Your task to perform on an android device: Show the shopping cart on target. Add rayovac triple a to the cart on target, then select checkout. Image 0: 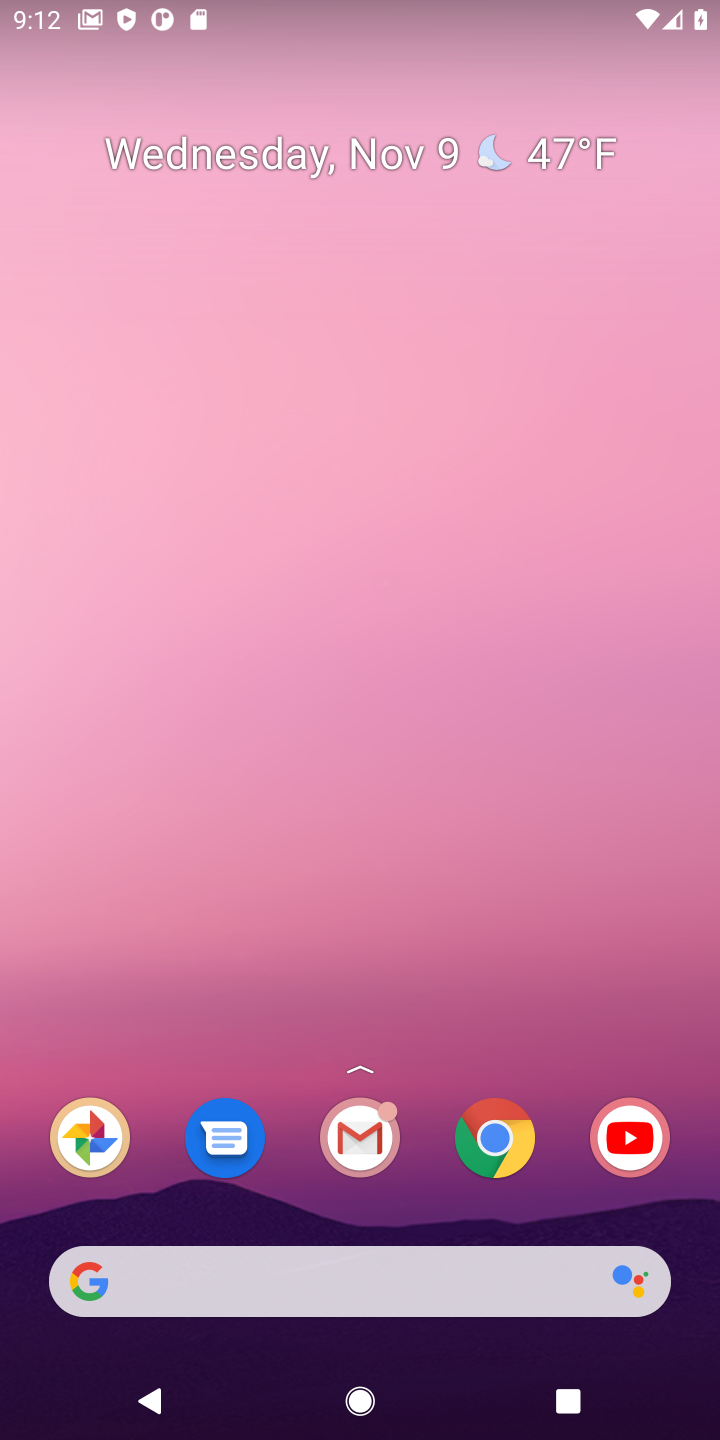
Step 0: drag from (412, 1187) to (421, 145)
Your task to perform on an android device: Show the shopping cart on target. Add rayovac triple a to the cart on target, then select checkout. Image 1: 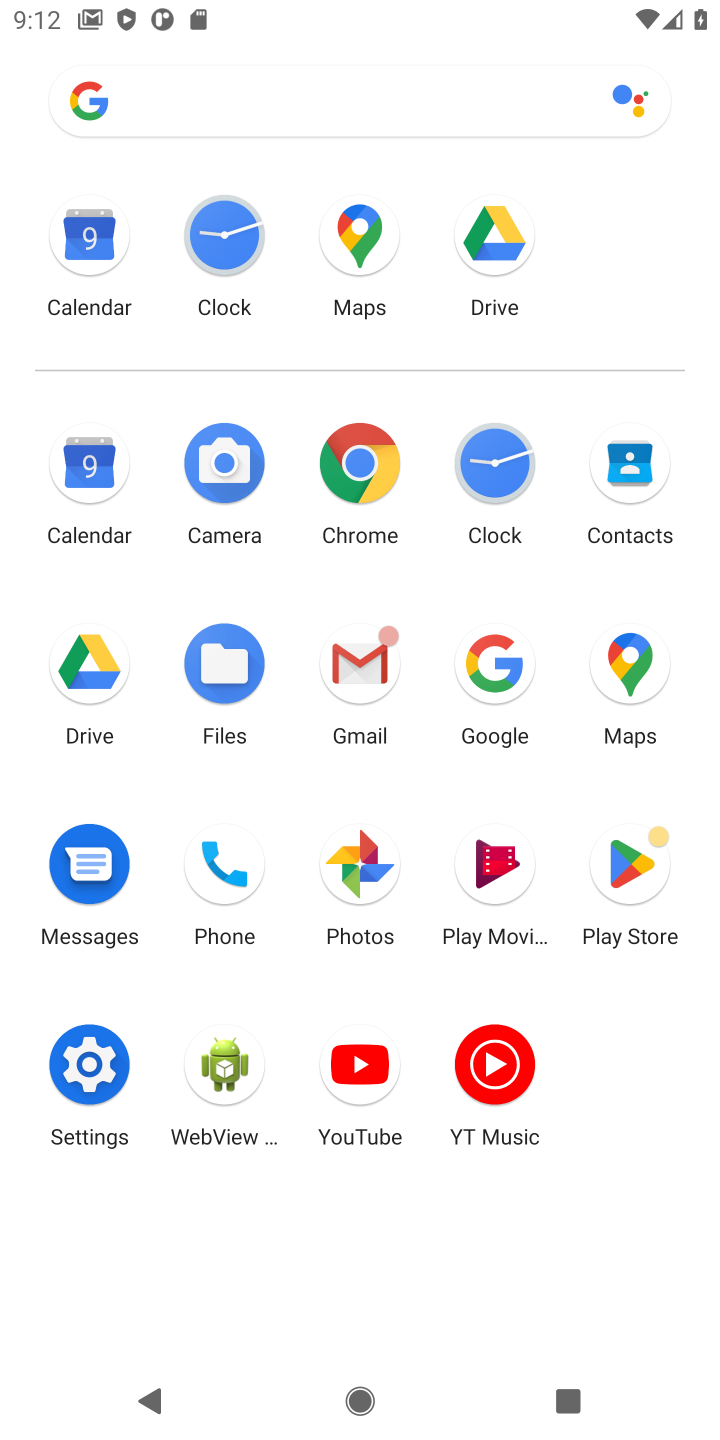
Step 1: click (359, 466)
Your task to perform on an android device: Show the shopping cart on target. Add rayovac triple a to the cart on target, then select checkout. Image 2: 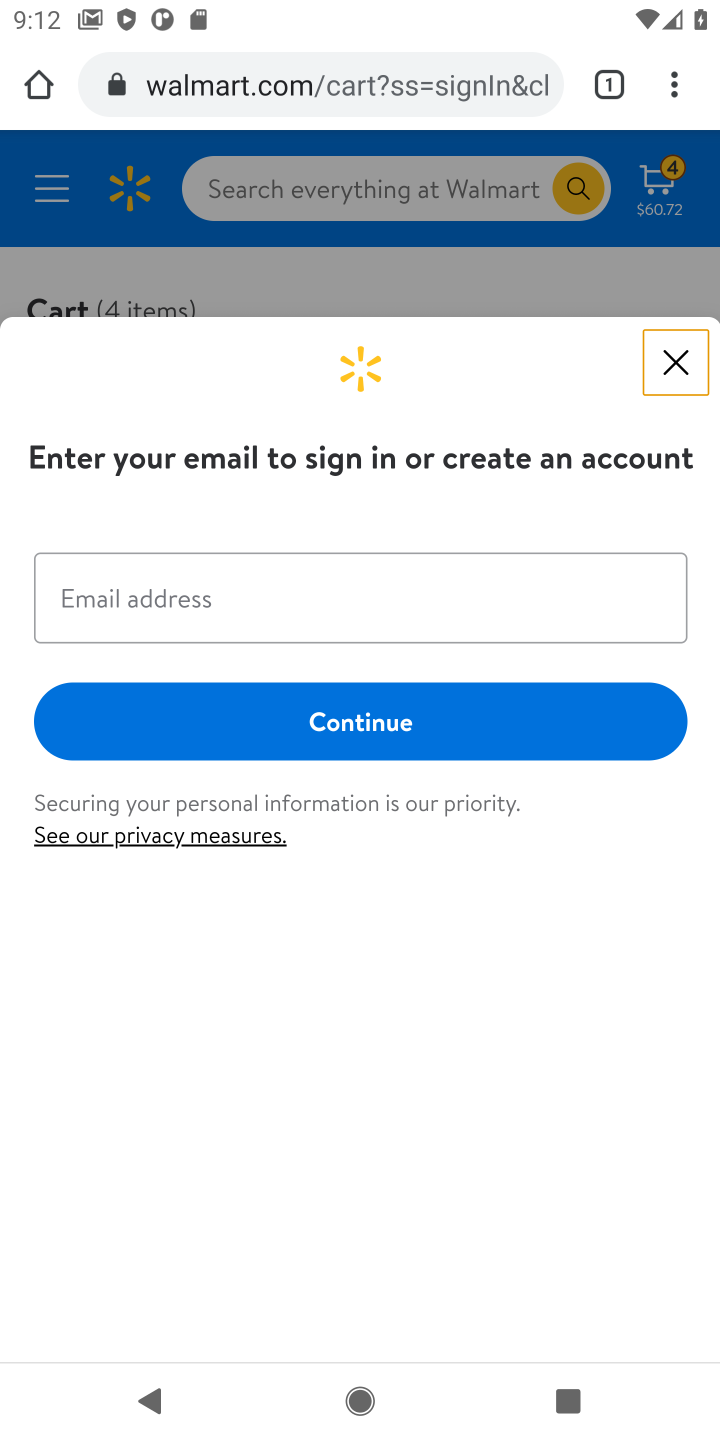
Step 2: click (315, 70)
Your task to perform on an android device: Show the shopping cart on target. Add rayovac triple a to the cart on target, then select checkout. Image 3: 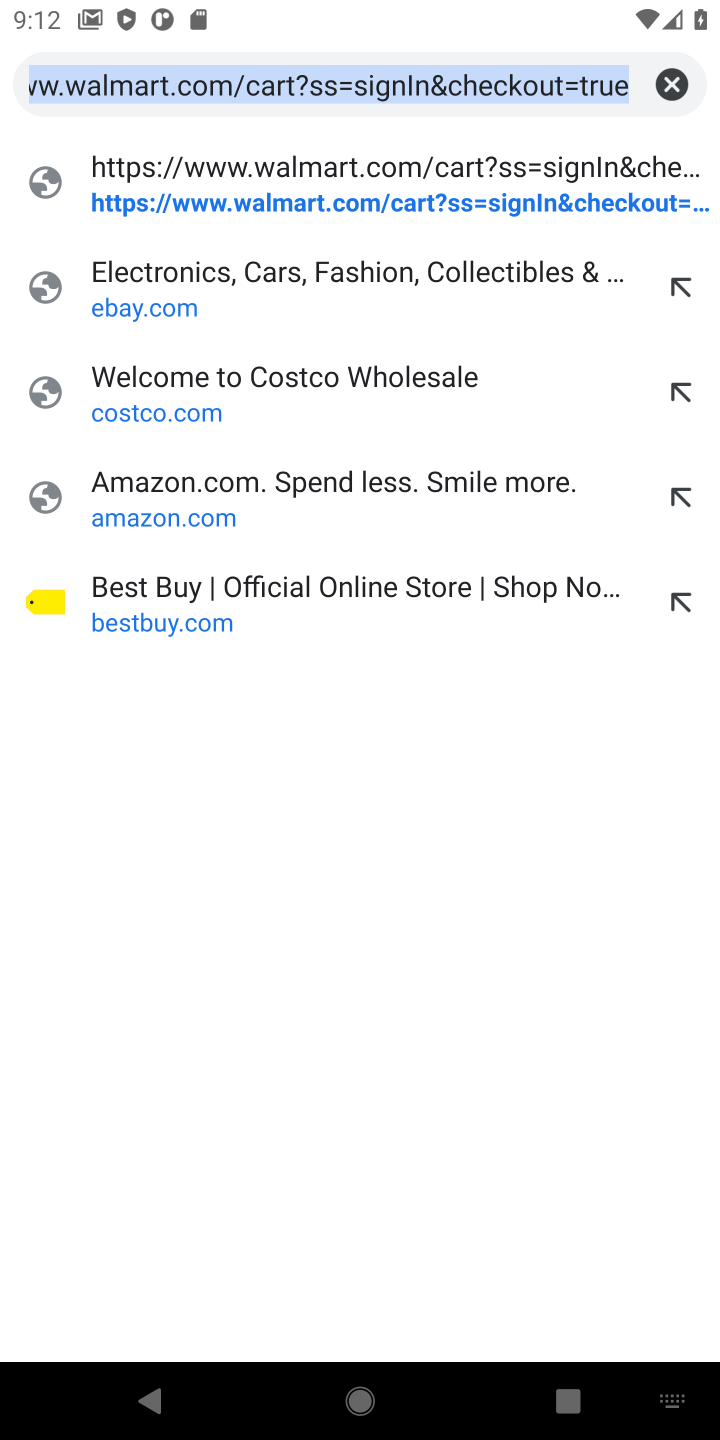
Step 3: type "target.com"
Your task to perform on an android device: Show the shopping cart on target. Add rayovac triple a to the cart on target, then select checkout. Image 4: 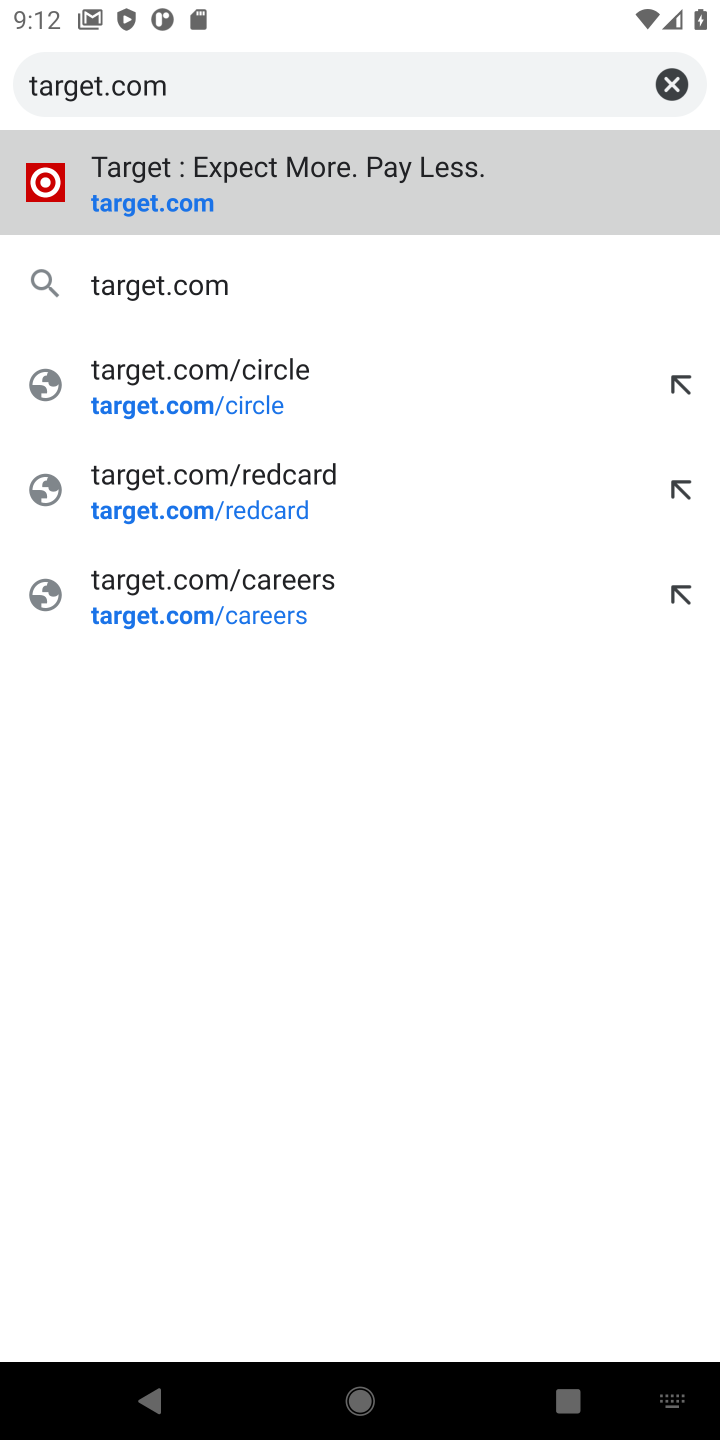
Step 4: press enter
Your task to perform on an android device: Show the shopping cart on target. Add rayovac triple a to the cart on target, then select checkout. Image 5: 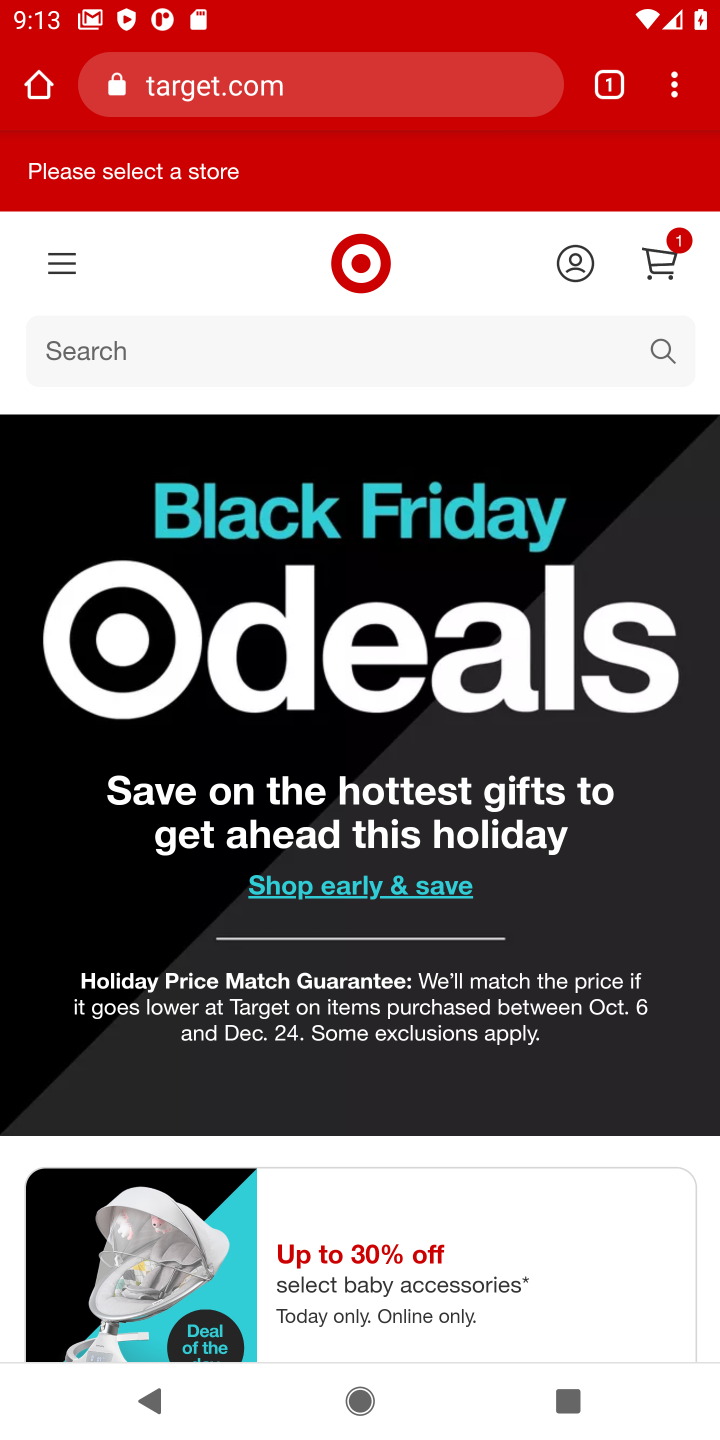
Step 5: click (485, 352)
Your task to perform on an android device: Show the shopping cart on target. Add rayovac triple a to the cart on target, then select checkout. Image 6: 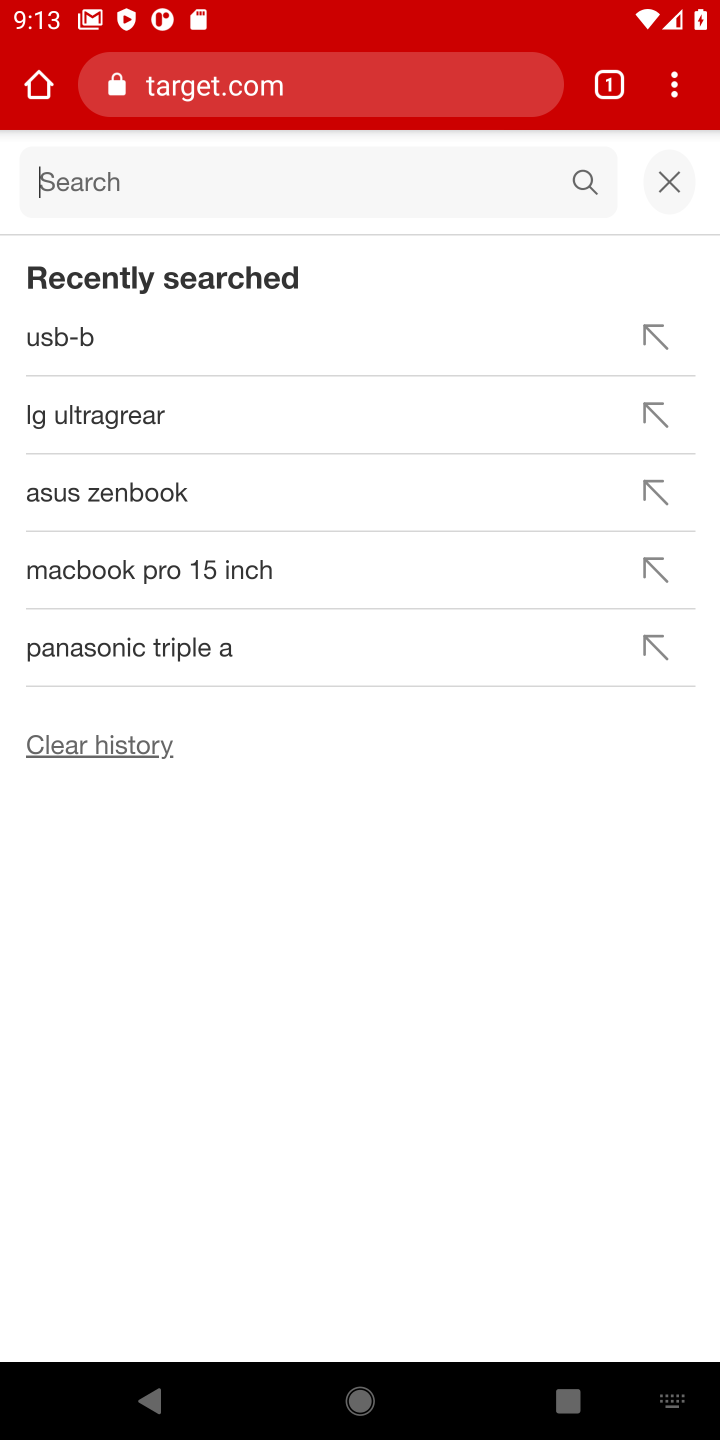
Step 6: click (665, 190)
Your task to perform on an android device: Show the shopping cart on target. Add rayovac triple a to the cart on target, then select checkout. Image 7: 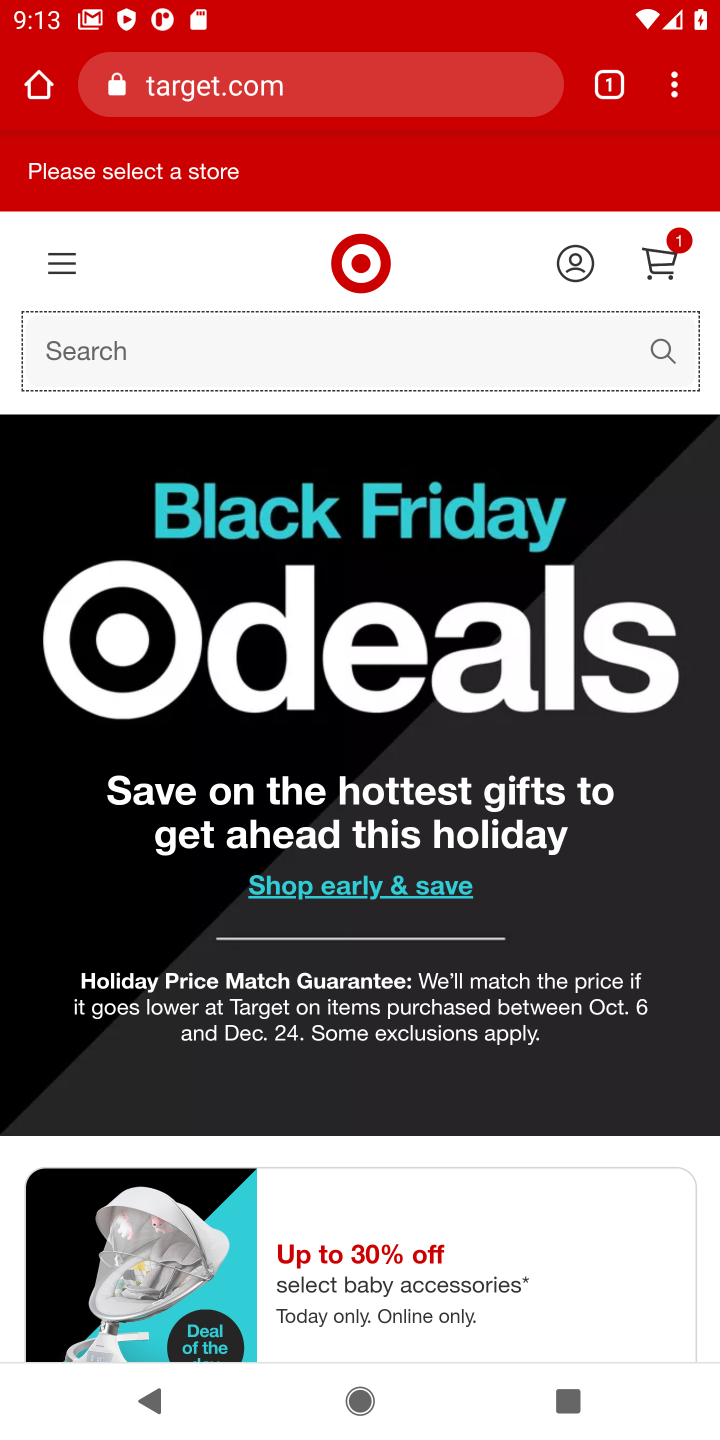
Step 7: click (667, 242)
Your task to perform on an android device: Show the shopping cart on target. Add rayovac triple a to the cart on target, then select checkout. Image 8: 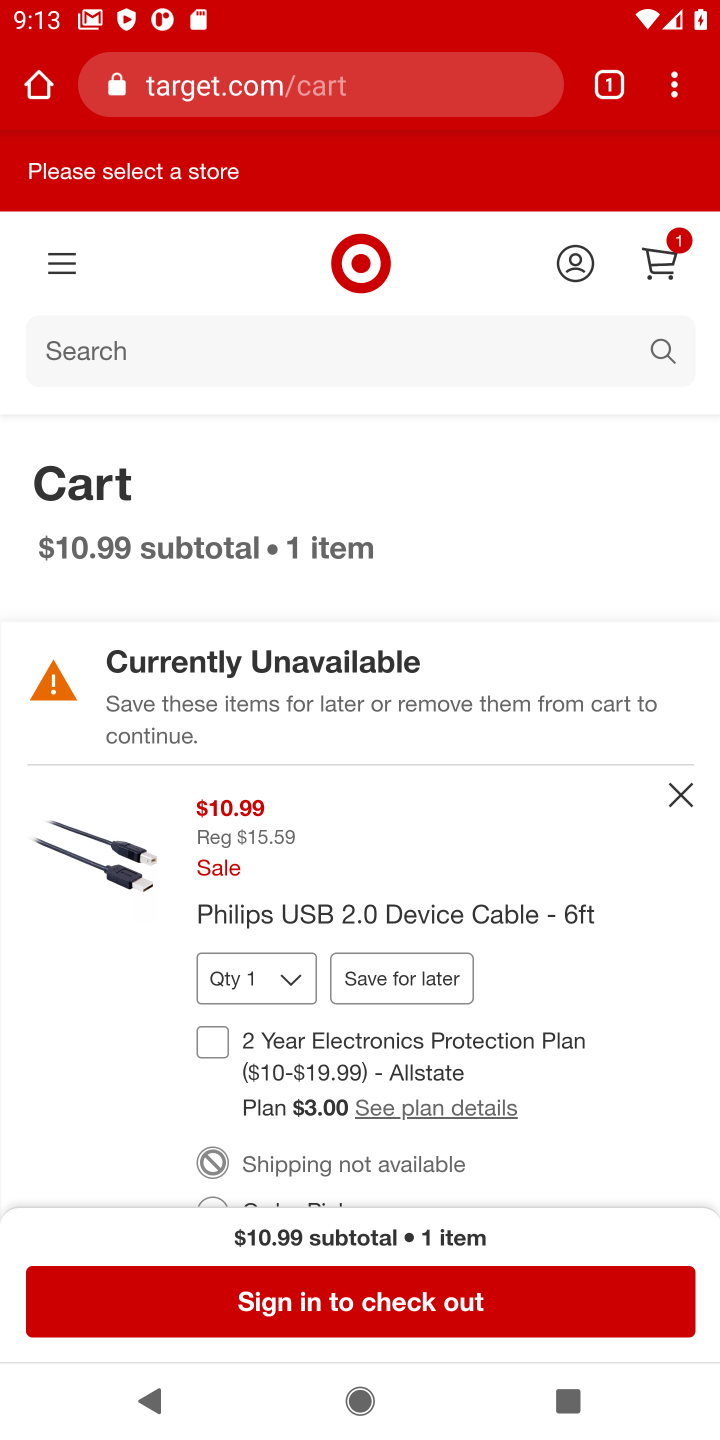
Step 8: click (461, 369)
Your task to perform on an android device: Show the shopping cart on target. Add rayovac triple a to the cart on target, then select checkout. Image 9: 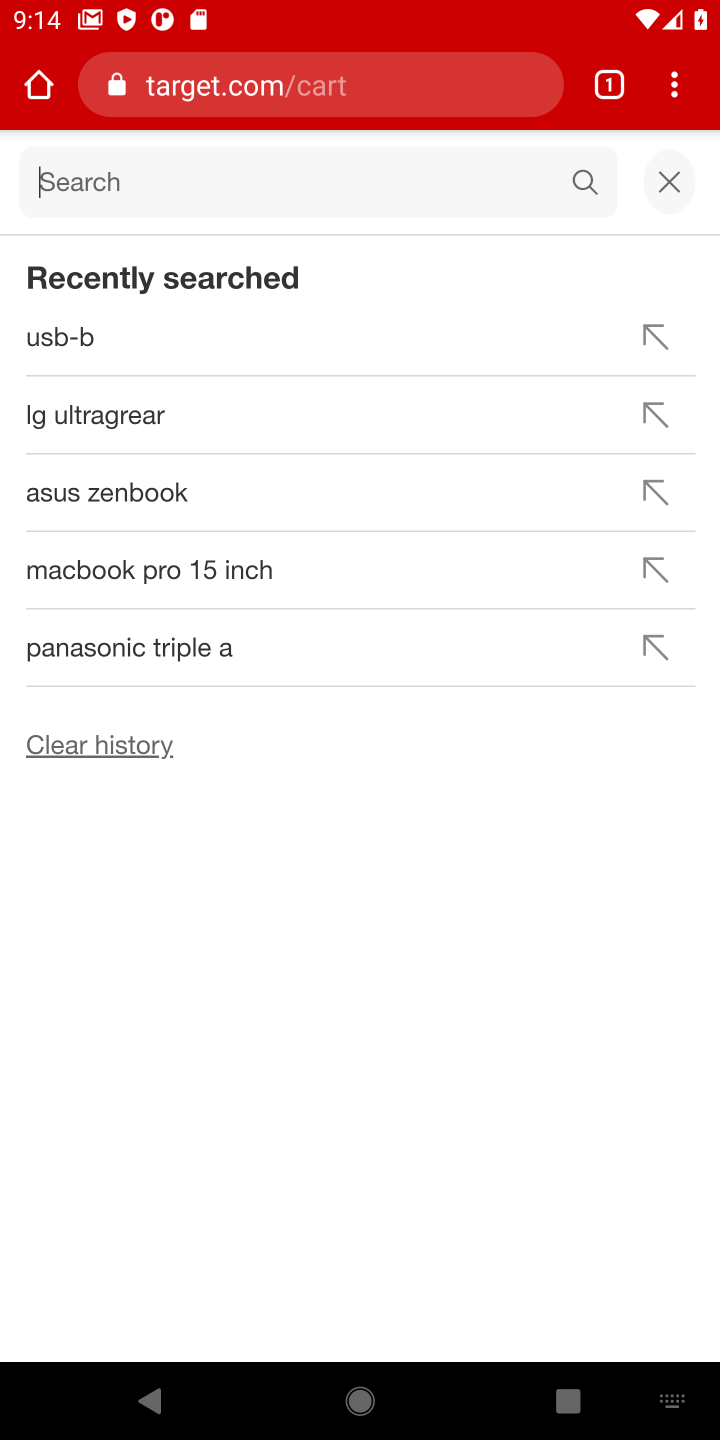
Step 9: type "rayovac triple a"
Your task to perform on an android device: Show the shopping cart on target. Add rayovac triple a to the cart on target, then select checkout. Image 10: 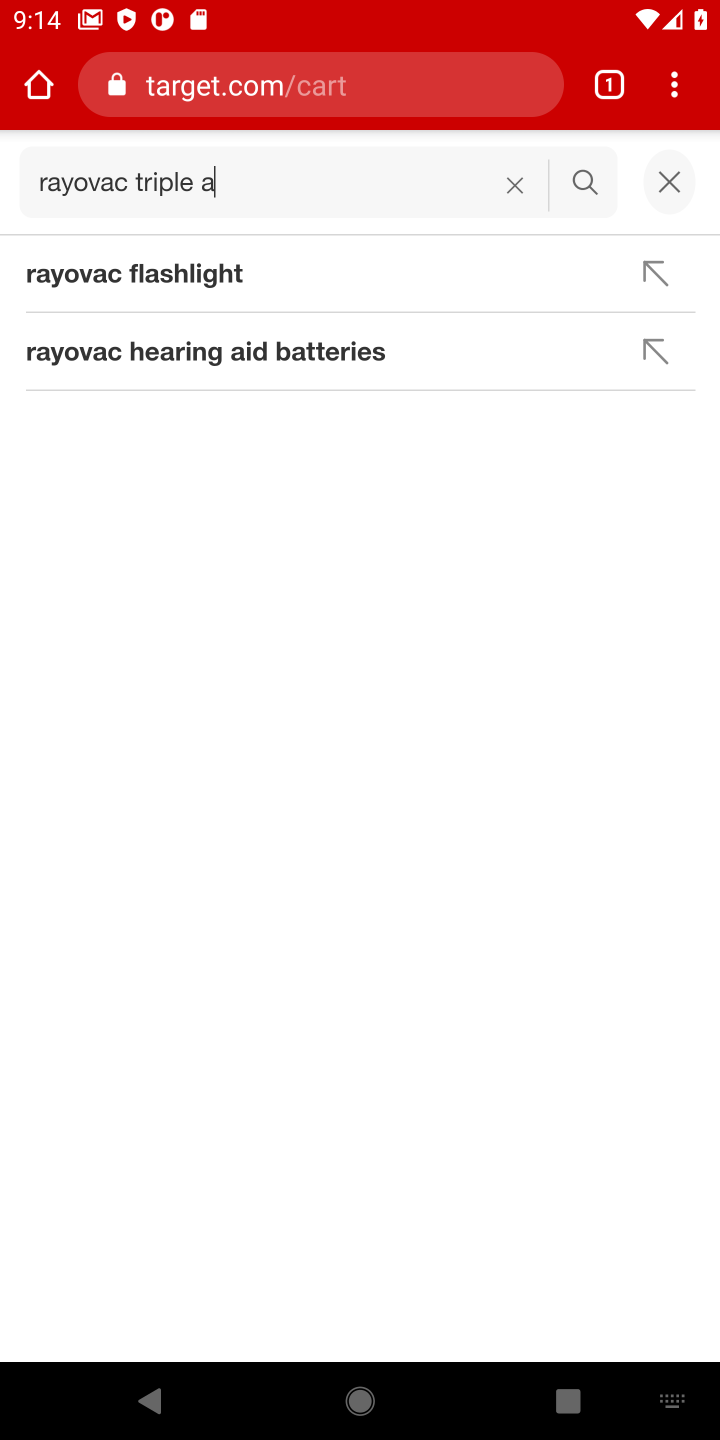
Step 10: press enter
Your task to perform on an android device: Show the shopping cart on target. Add rayovac triple a to the cart on target, then select checkout. Image 11: 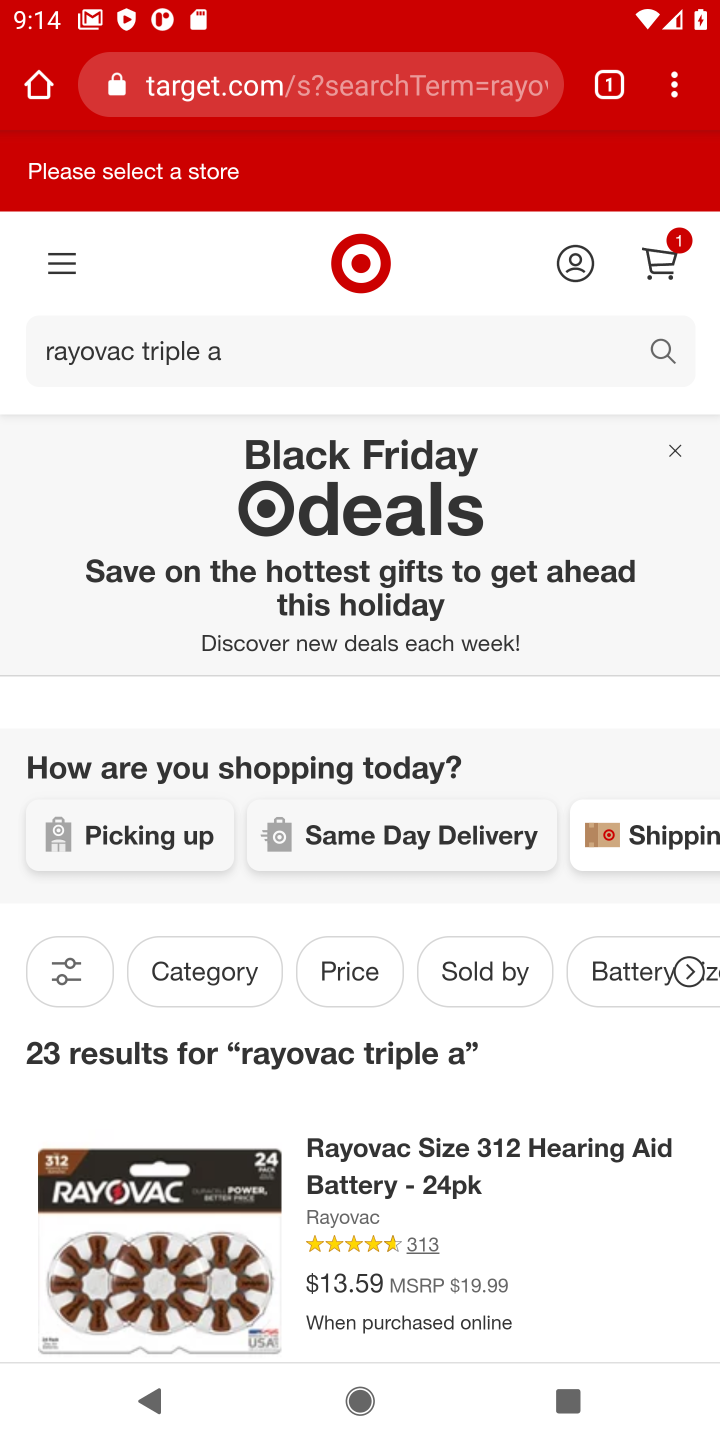
Step 11: task complete